Your task to perform on an android device: Open my contact list Image 0: 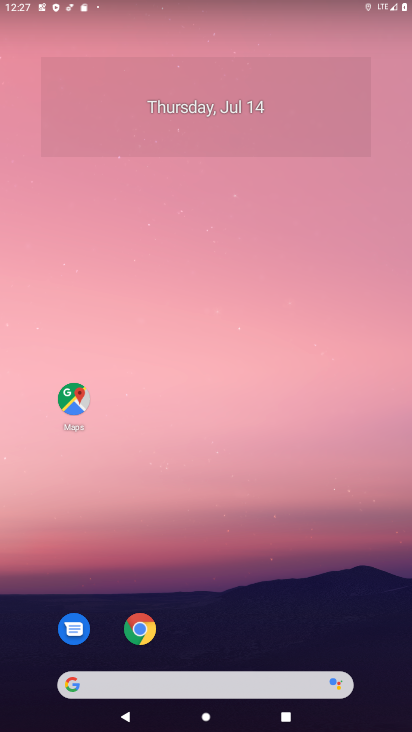
Step 0: drag from (315, 617) to (17, 149)
Your task to perform on an android device: Open my contact list Image 1: 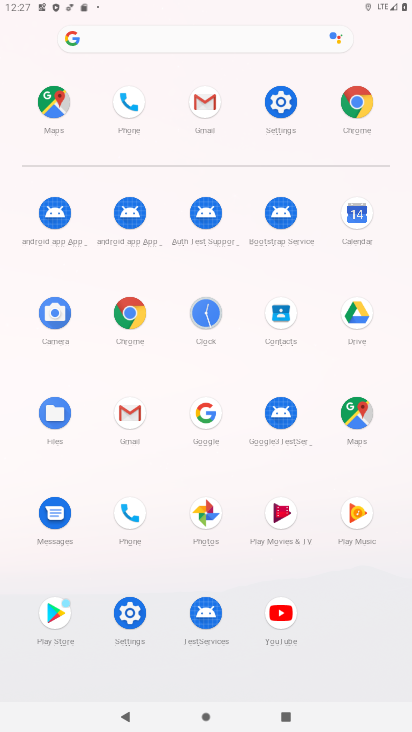
Step 1: click (126, 518)
Your task to perform on an android device: Open my contact list Image 2: 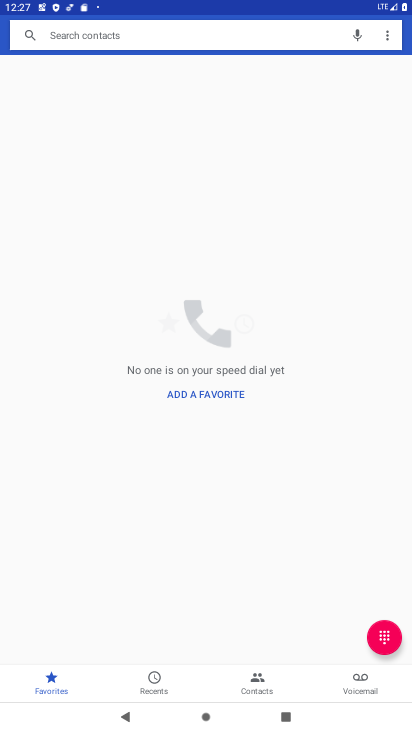
Step 2: click (249, 663)
Your task to perform on an android device: Open my contact list Image 3: 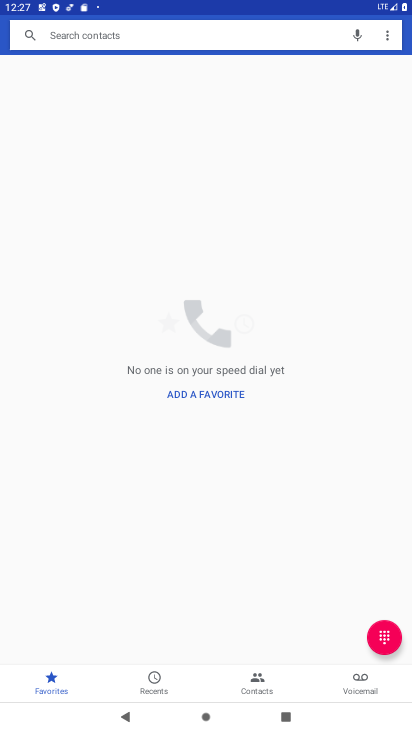
Step 3: click (265, 686)
Your task to perform on an android device: Open my contact list Image 4: 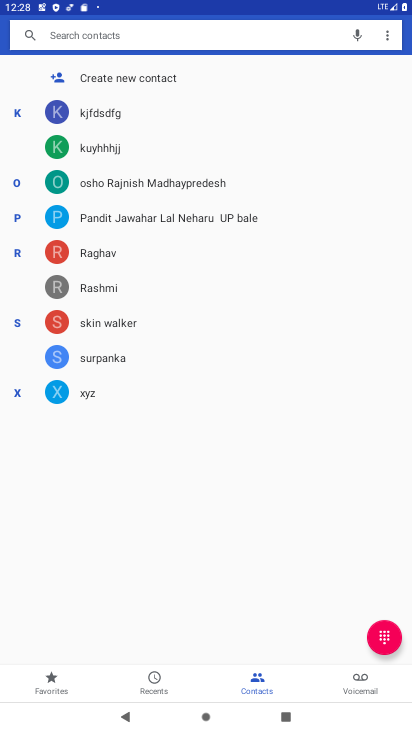
Step 4: click (138, 79)
Your task to perform on an android device: Open my contact list Image 5: 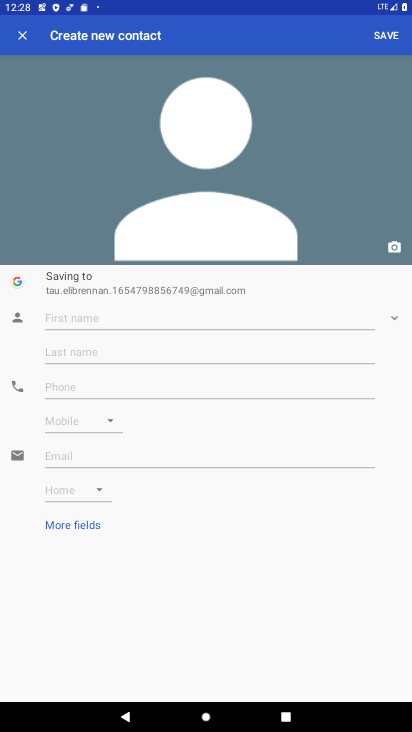
Step 5: click (153, 305)
Your task to perform on an android device: Open my contact list Image 6: 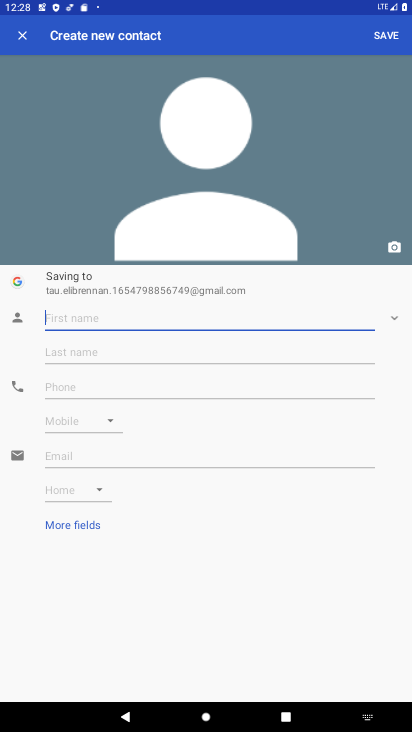
Step 6: type "yuuiii"
Your task to perform on an android device: Open my contact list Image 7: 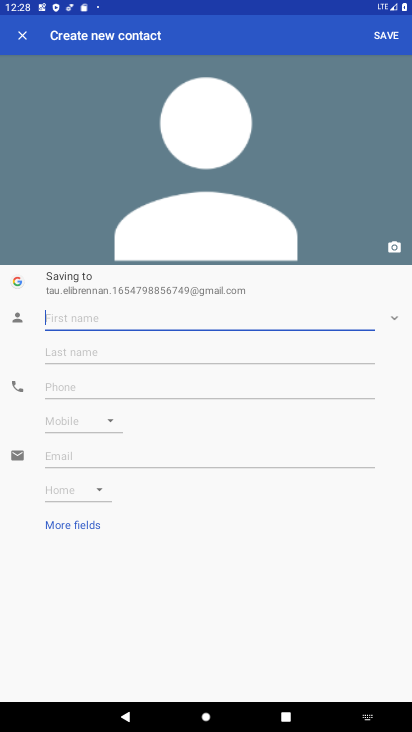
Step 7: click (86, 378)
Your task to perform on an android device: Open my contact list Image 8: 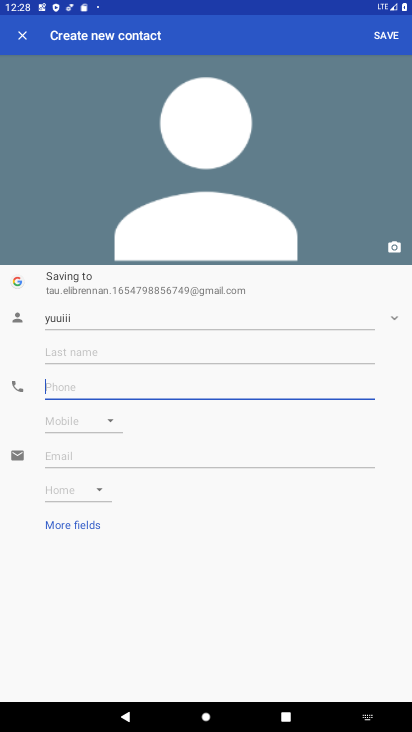
Step 8: type "56789876545"
Your task to perform on an android device: Open my contact list Image 9: 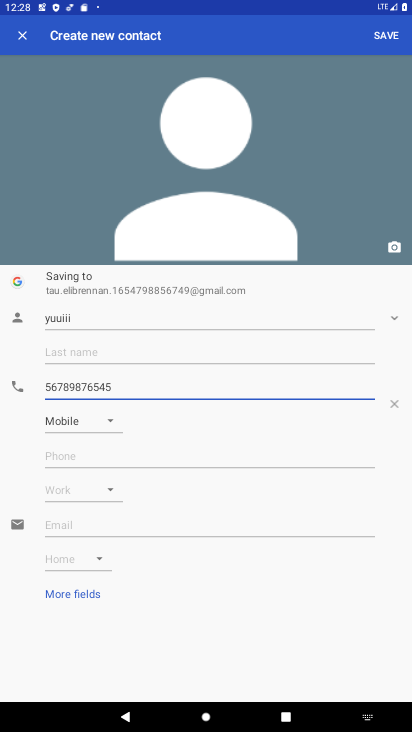
Step 9: click (379, 41)
Your task to perform on an android device: Open my contact list Image 10: 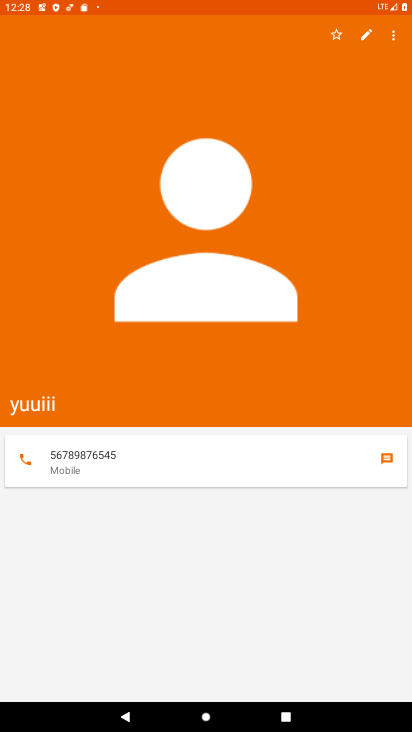
Step 10: task complete